Your task to perform on an android device: delete the emails in spam in the gmail app Image 0: 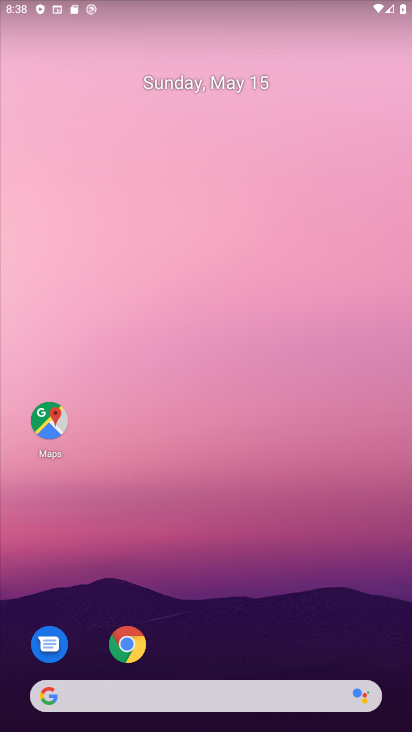
Step 0: drag from (205, 682) to (176, 28)
Your task to perform on an android device: delete the emails in spam in the gmail app Image 1: 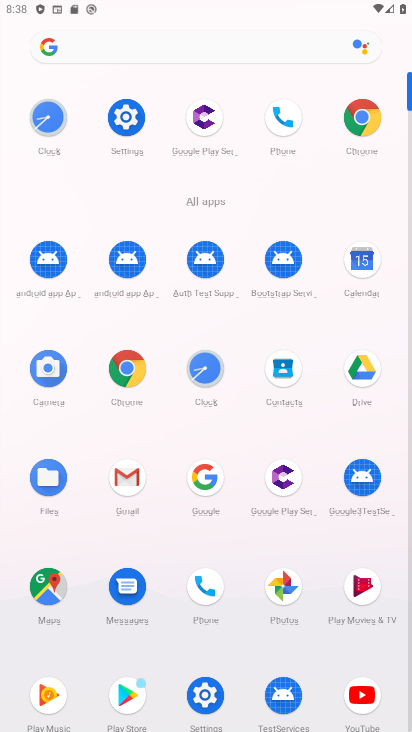
Step 1: click (130, 468)
Your task to perform on an android device: delete the emails in spam in the gmail app Image 2: 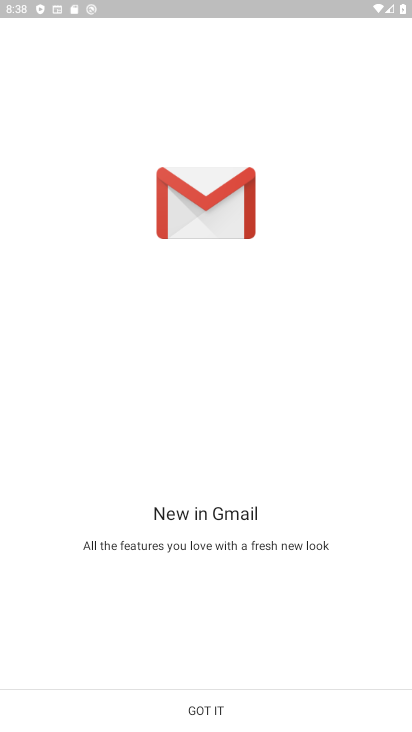
Step 2: click (177, 686)
Your task to perform on an android device: delete the emails in spam in the gmail app Image 3: 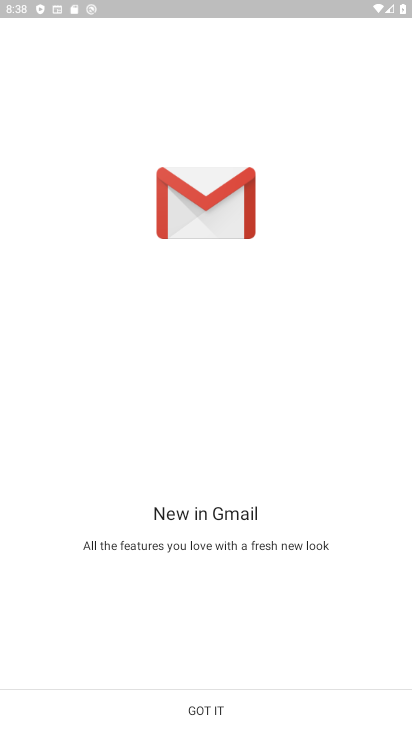
Step 3: click (185, 716)
Your task to perform on an android device: delete the emails in spam in the gmail app Image 4: 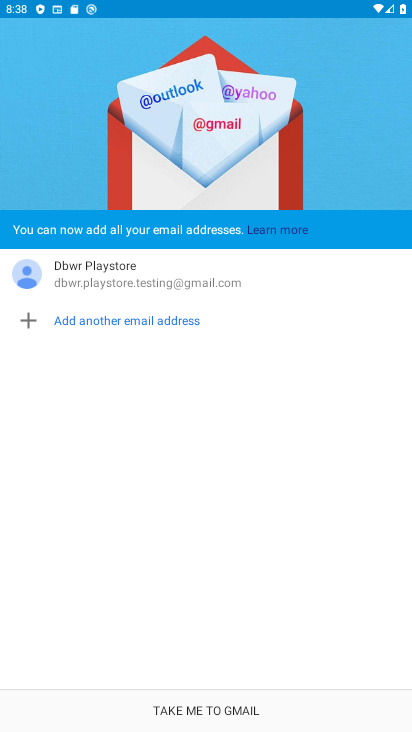
Step 4: click (185, 712)
Your task to perform on an android device: delete the emails in spam in the gmail app Image 5: 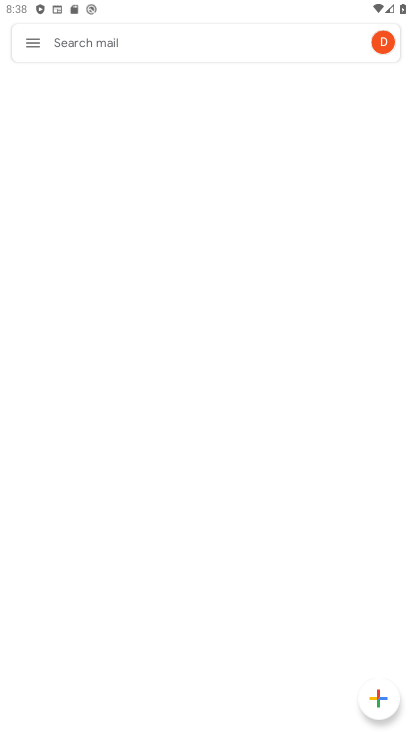
Step 5: click (36, 39)
Your task to perform on an android device: delete the emails in spam in the gmail app Image 6: 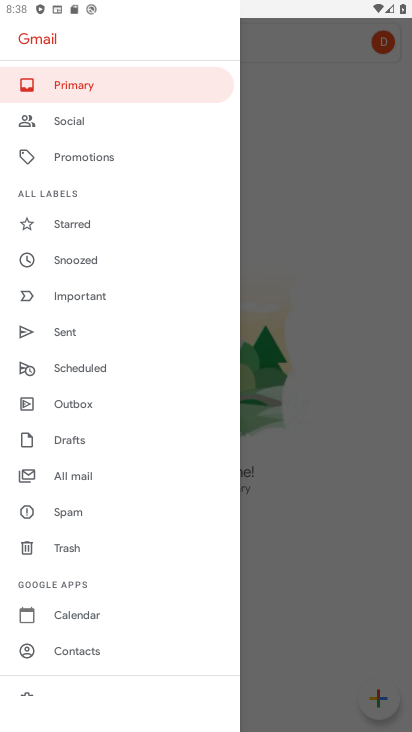
Step 6: click (81, 514)
Your task to perform on an android device: delete the emails in spam in the gmail app Image 7: 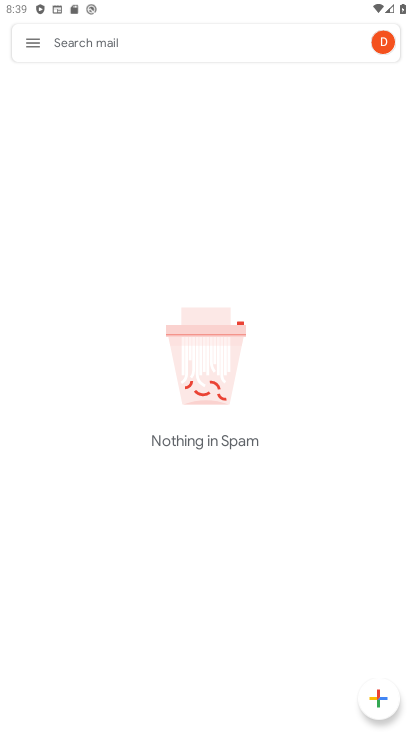
Step 7: task complete